Your task to perform on an android device: Open calendar and show me the first week of next month Image 0: 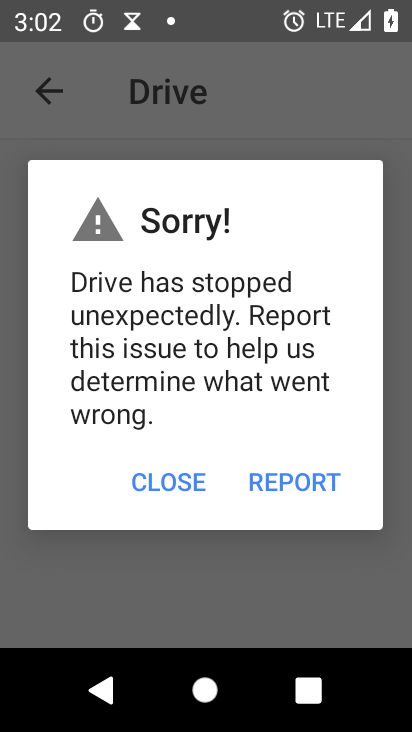
Step 0: press home button
Your task to perform on an android device: Open calendar and show me the first week of next month Image 1: 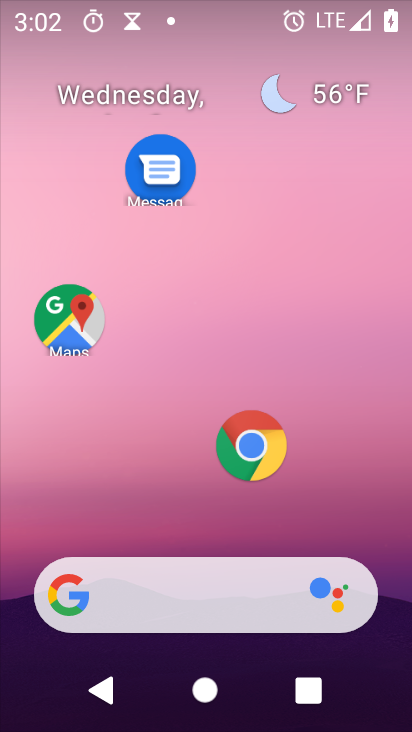
Step 1: drag from (202, 520) to (207, 149)
Your task to perform on an android device: Open calendar and show me the first week of next month Image 2: 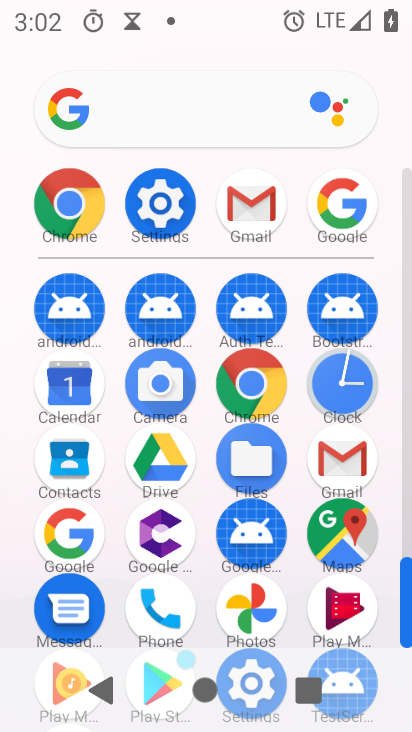
Step 2: click (79, 413)
Your task to perform on an android device: Open calendar and show me the first week of next month Image 3: 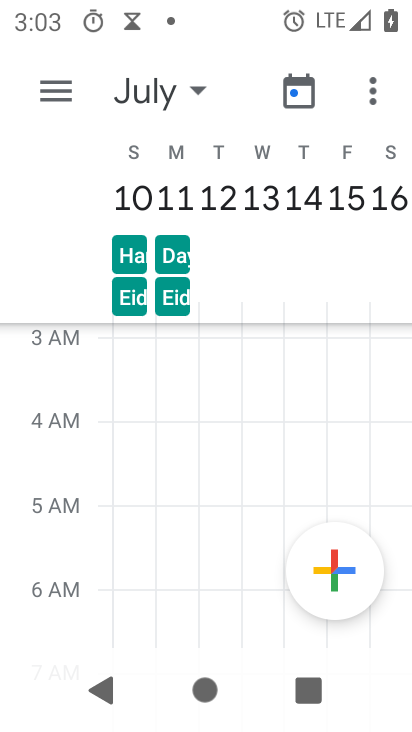
Step 3: click (201, 100)
Your task to perform on an android device: Open calendar and show me the first week of next month Image 4: 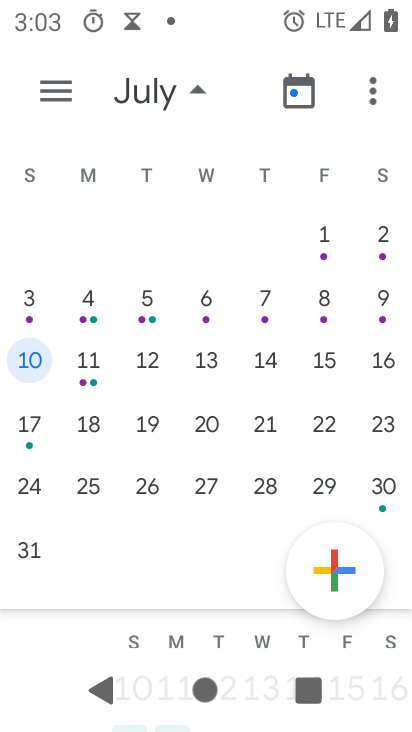
Step 4: click (320, 233)
Your task to perform on an android device: Open calendar and show me the first week of next month Image 5: 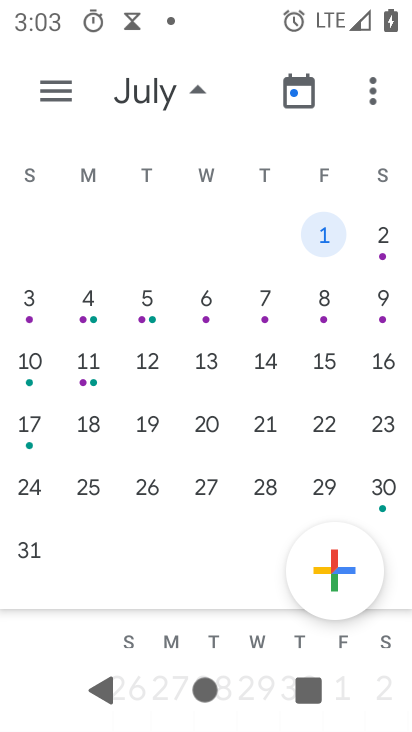
Step 5: click (200, 91)
Your task to perform on an android device: Open calendar and show me the first week of next month Image 6: 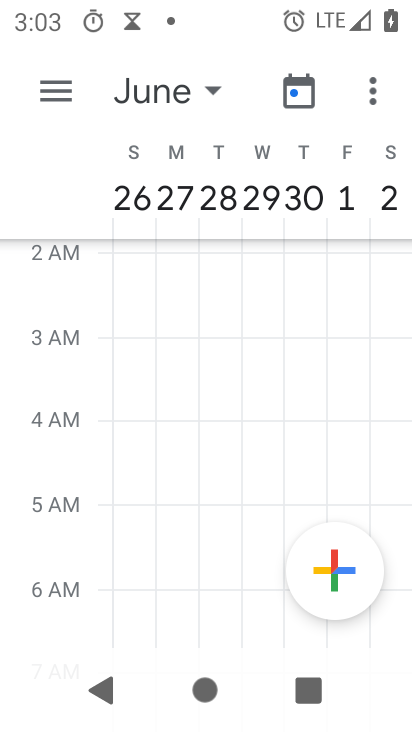
Step 6: task complete